Your task to perform on an android device: Do I have any events tomorrow? Image 0: 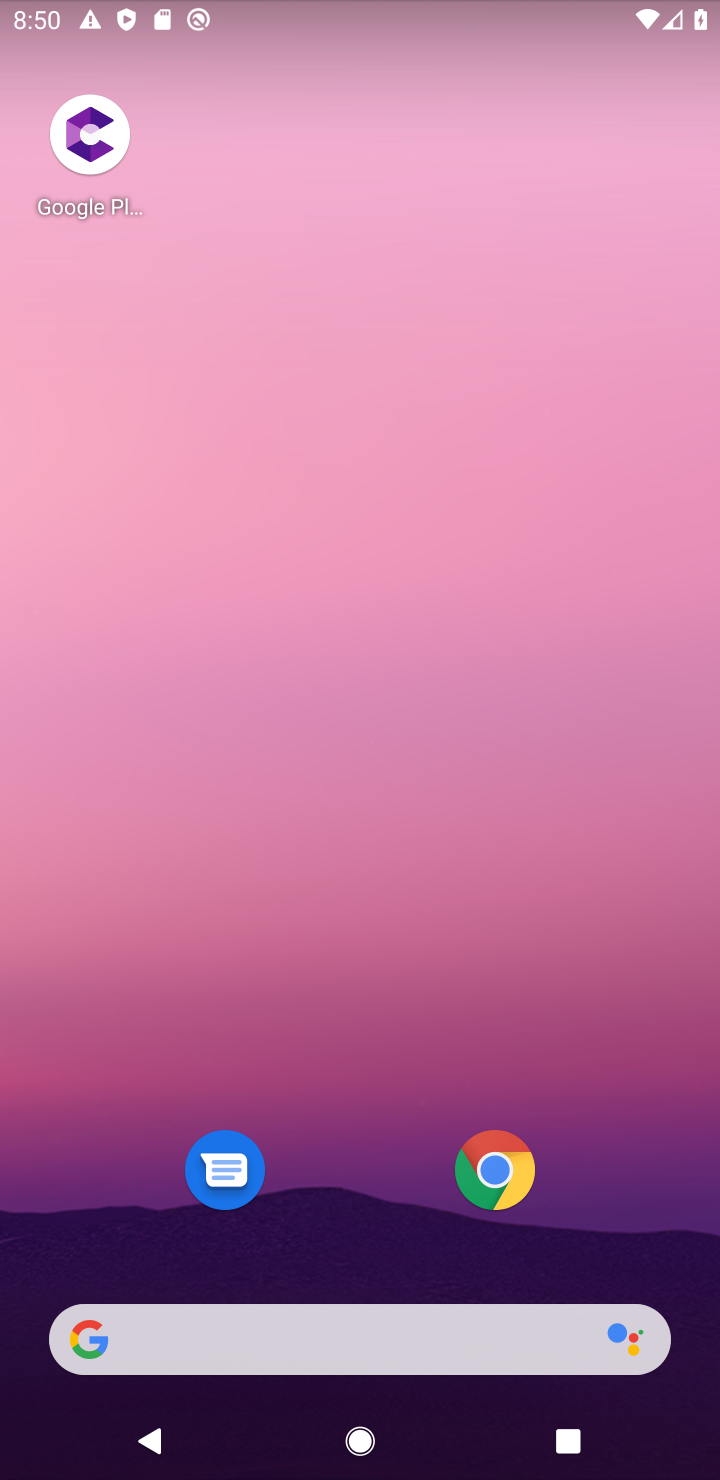
Step 0: drag from (326, 1236) to (340, 208)
Your task to perform on an android device: Do I have any events tomorrow? Image 1: 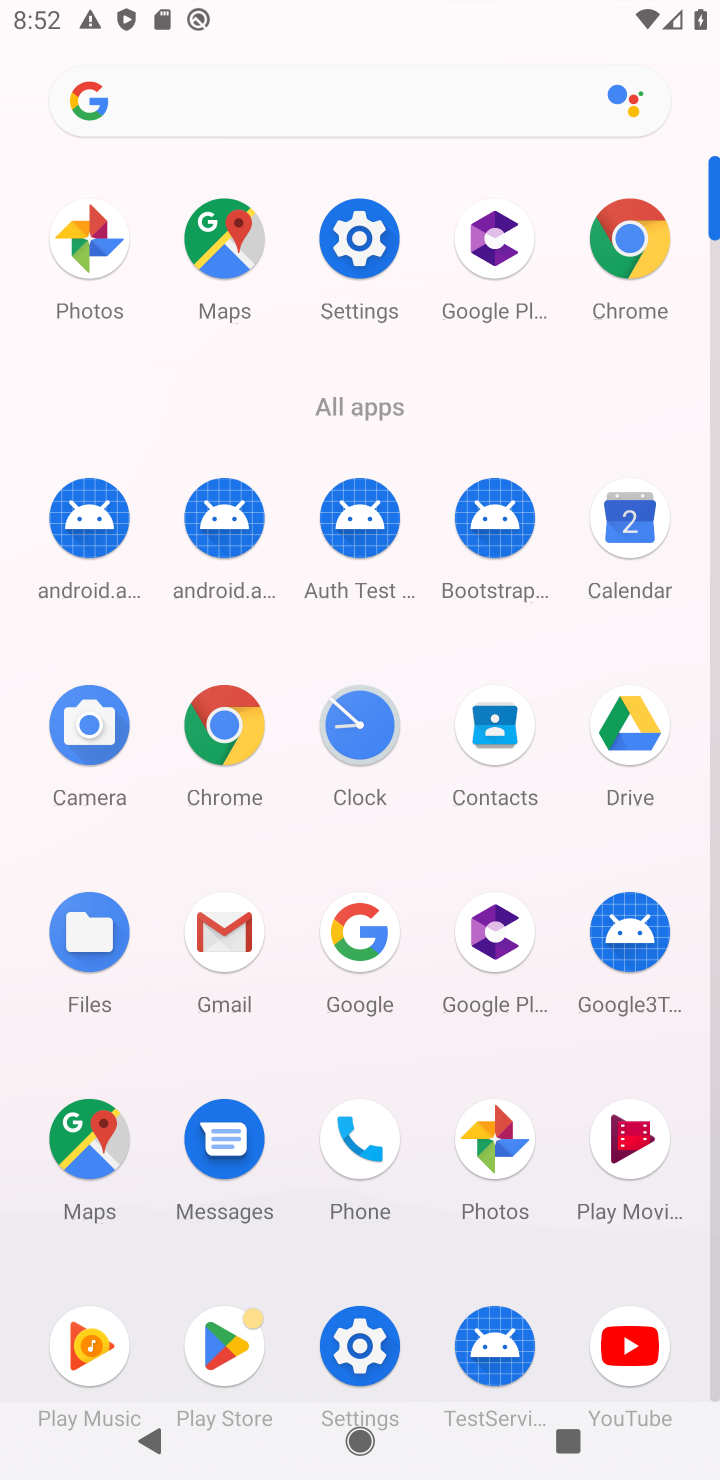
Step 1: click (597, 533)
Your task to perform on an android device: Do I have any events tomorrow? Image 2: 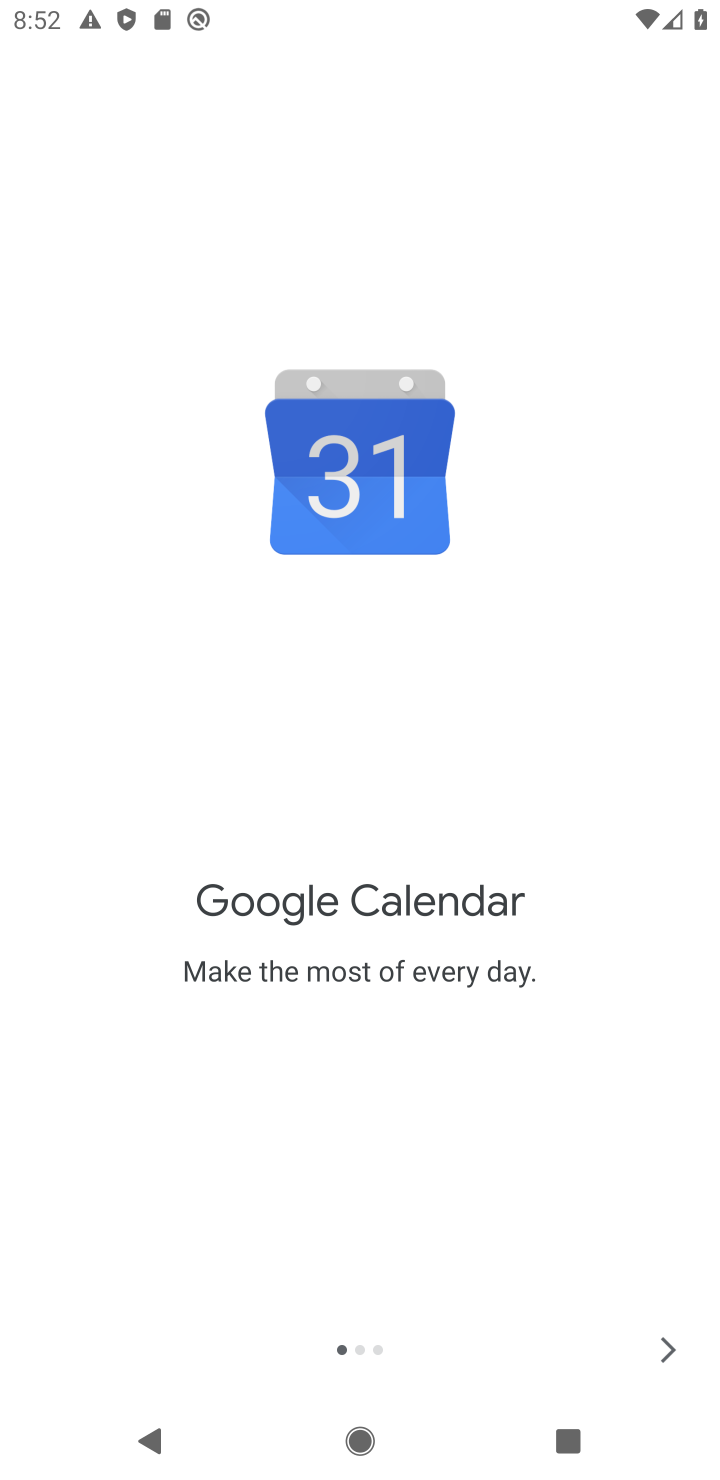
Step 2: click (666, 1346)
Your task to perform on an android device: Do I have any events tomorrow? Image 3: 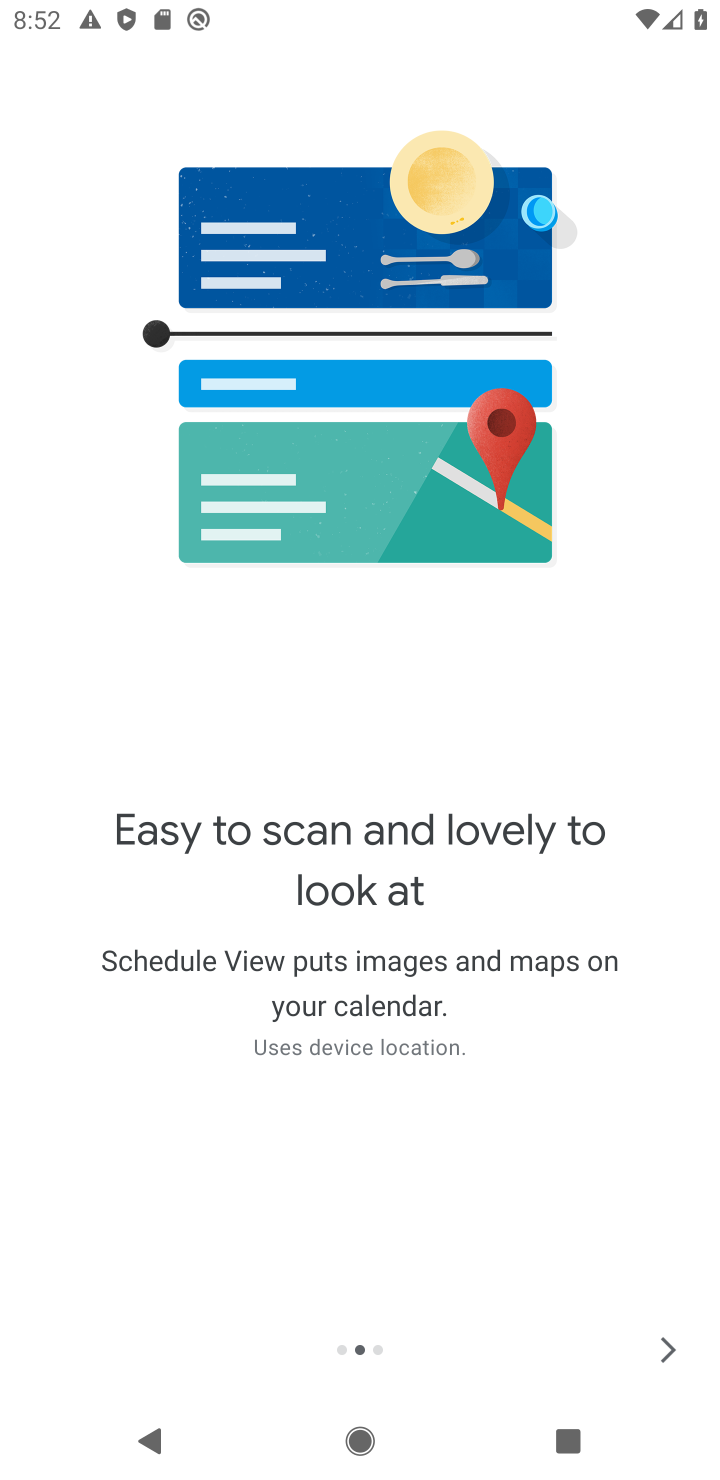
Step 3: click (666, 1346)
Your task to perform on an android device: Do I have any events tomorrow? Image 4: 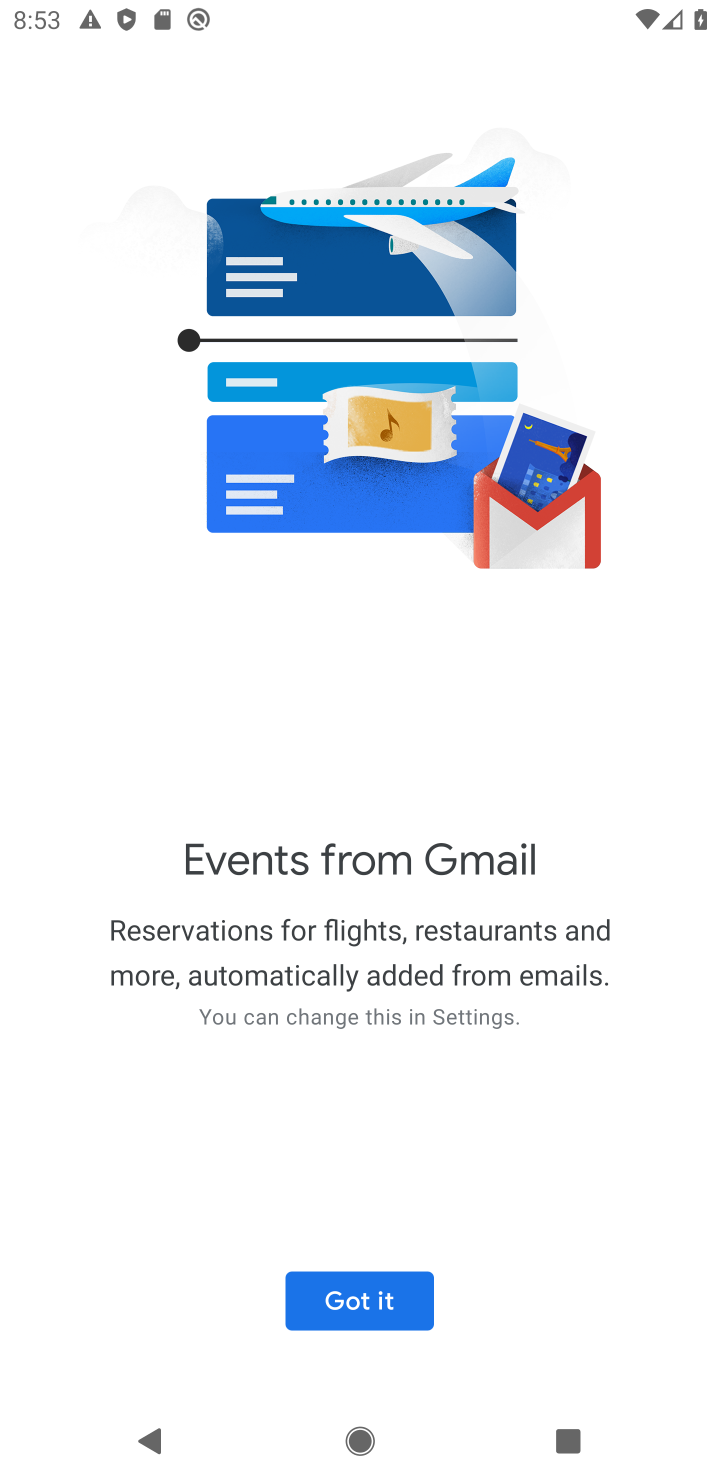
Step 4: click (343, 1311)
Your task to perform on an android device: Do I have any events tomorrow? Image 5: 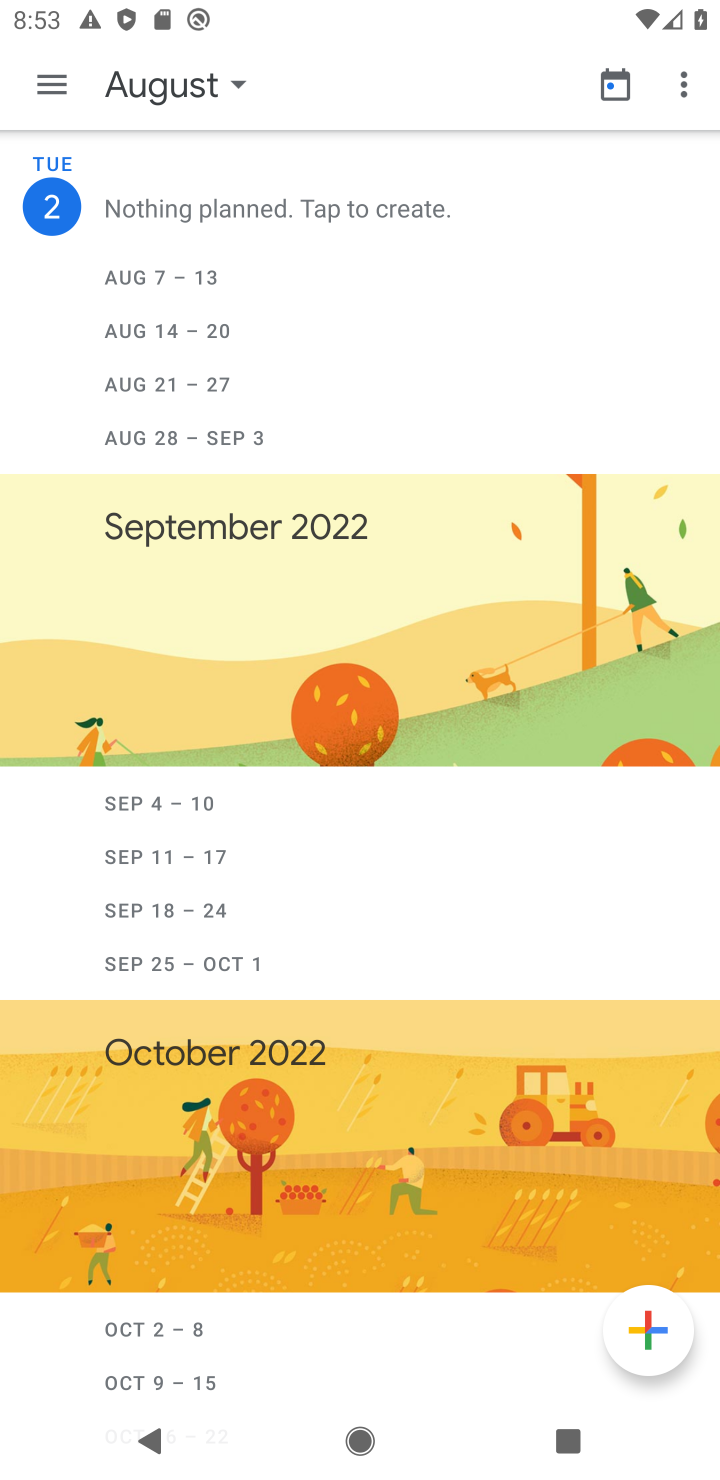
Step 5: click (156, 82)
Your task to perform on an android device: Do I have any events tomorrow? Image 6: 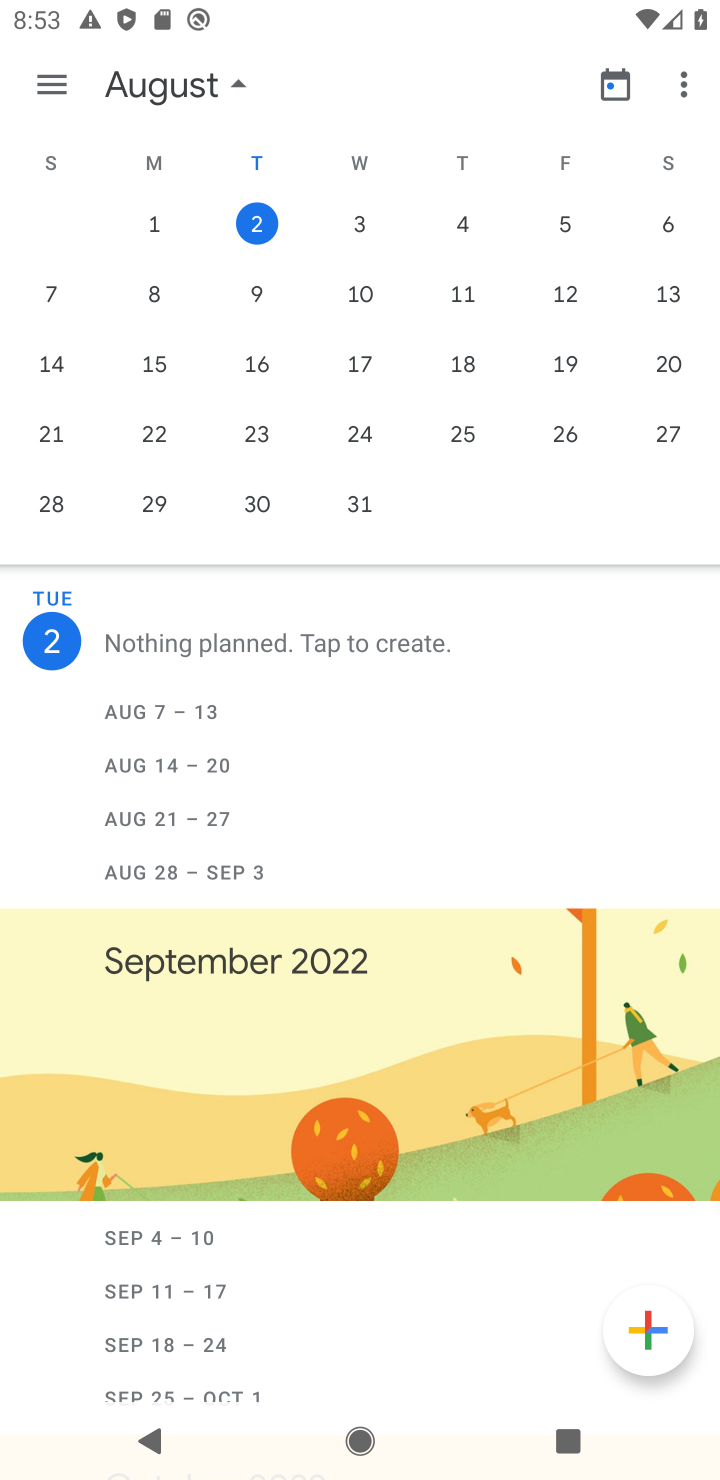
Step 6: click (347, 219)
Your task to perform on an android device: Do I have any events tomorrow? Image 7: 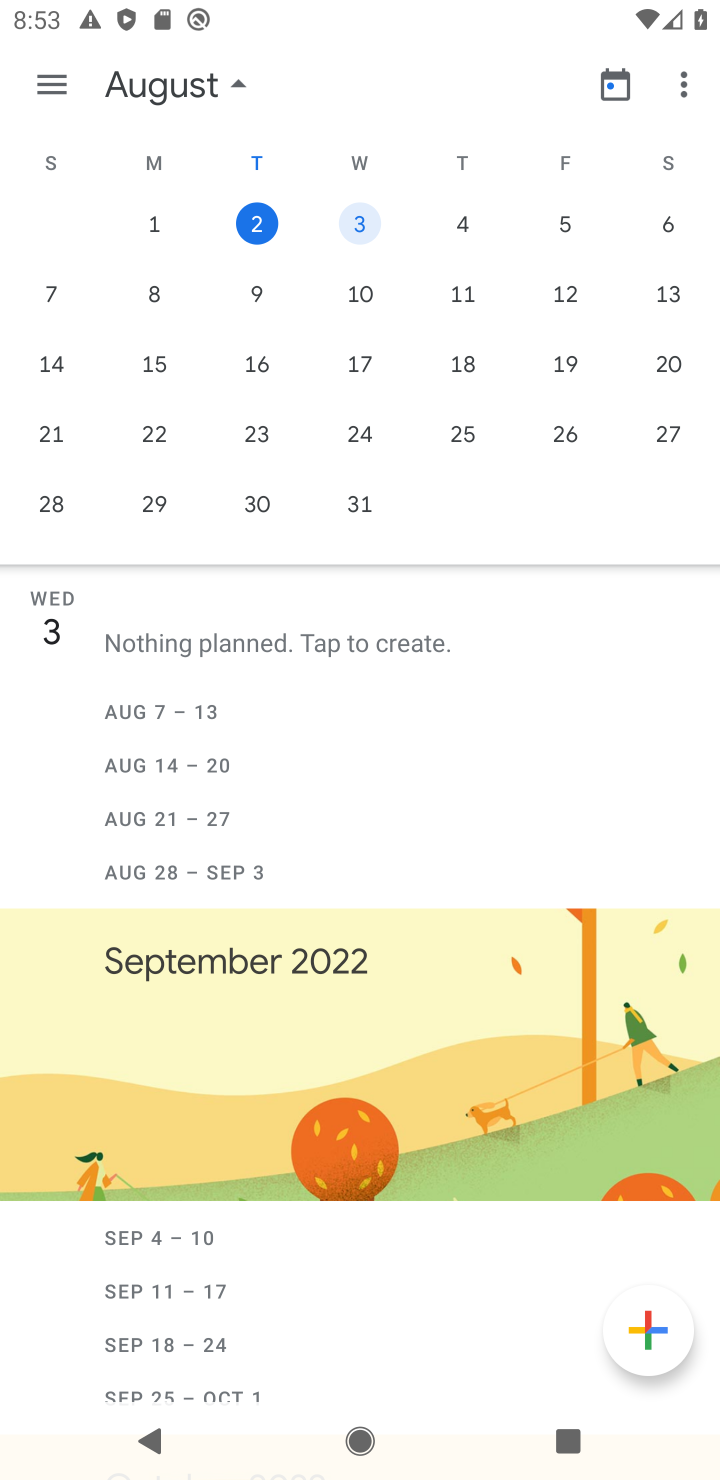
Step 7: task complete